Your task to perform on an android device: Open the stopwatch Image 0: 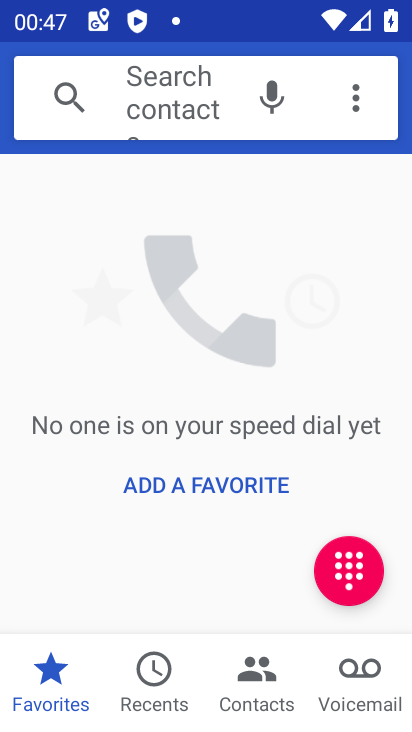
Step 0: press home button
Your task to perform on an android device: Open the stopwatch Image 1: 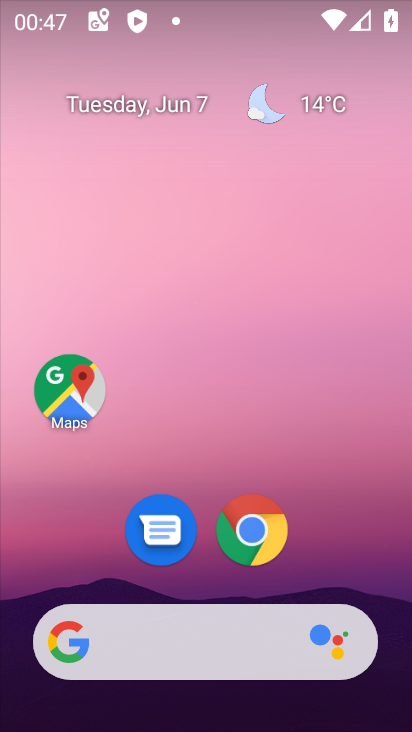
Step 1: drag from (357, 553) to (371, 258)
Your task to perform on an android device: Open the stopwatch Image 2: 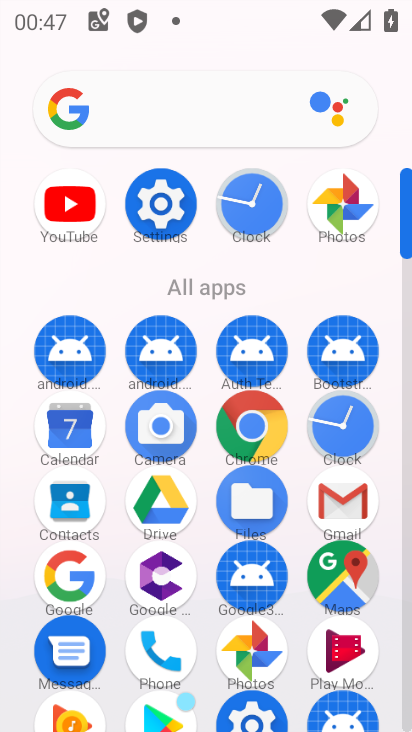
Step 2: click (338, 413)
Your task to perform on an android device: Open the stopwatch Image 3: 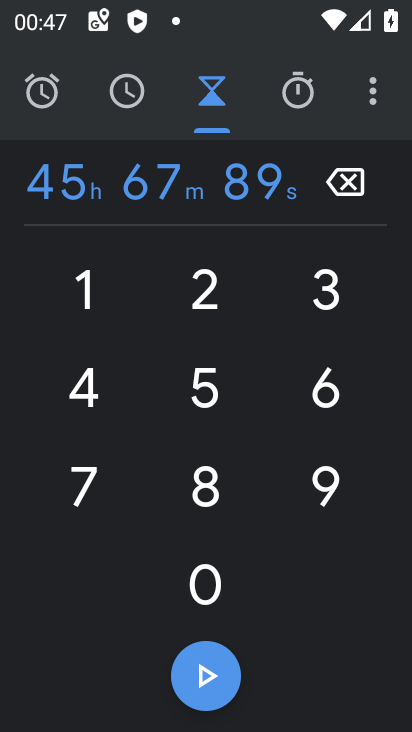
Step 3: click (285, 89)
Your task to perform on an android device: Open the stopwatch Image 4: 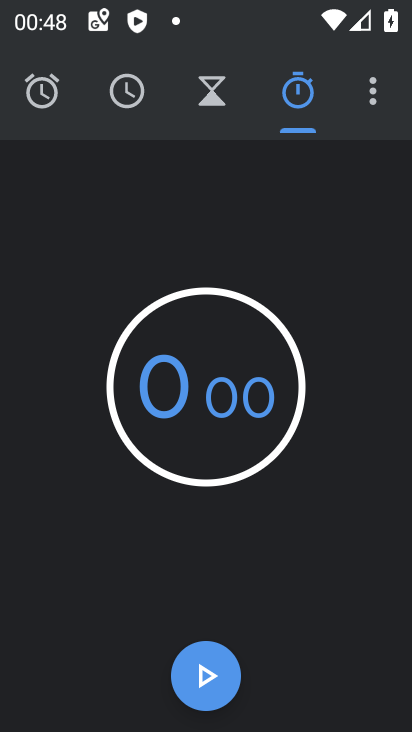
Step 4: task complete